Your task to perform on an android device: open a bookmark in the chrome app Image 0: 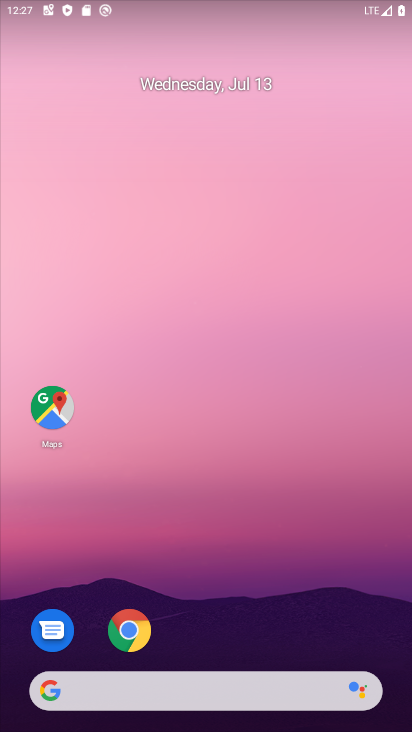
Step 0: drag from (388, 655) to (234, 27)
Your task to perform on an android device: open a bookmark in the chrome app Image 1: 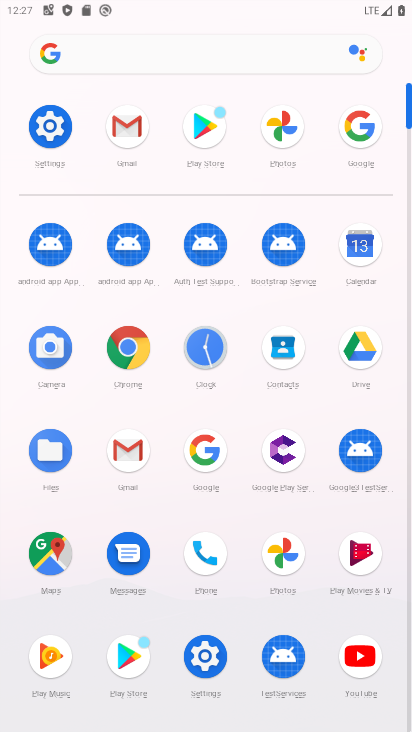
Step 1: click (136, 335)
Your task to perform on an android device: open a bookmark in the chrome app Image 2: 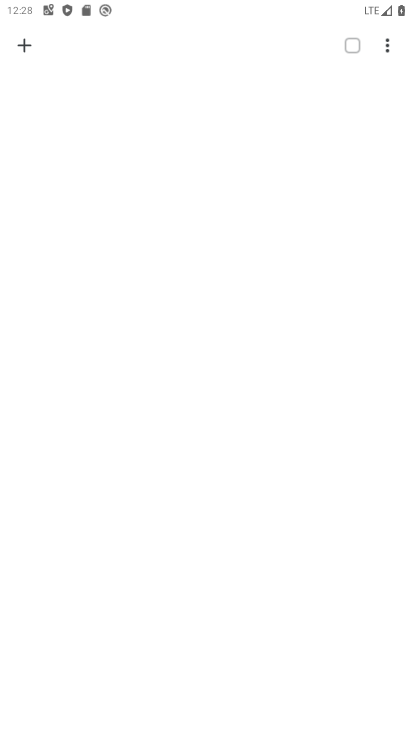
Step 2: click (386, 37)
Your task to perform on an android device: open a bookmark in the chrome app Image 3: 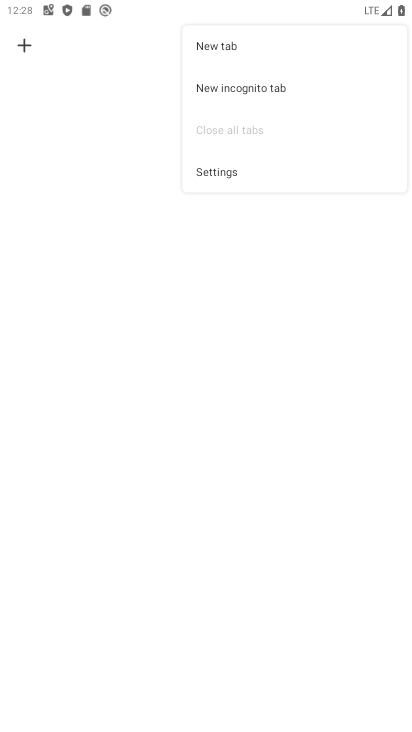
Step 3: click (244, 170)
Your task to perform on an android device: open a bookmark in the chrome app Image 4: 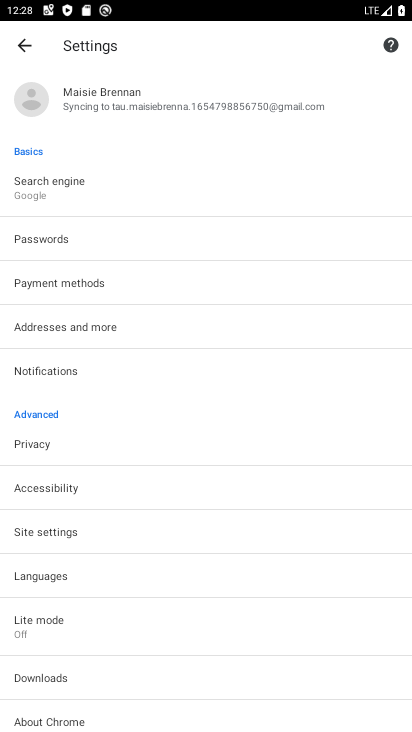
Step 4: task complete